Your task to perform on an android device: open app "Roku - Official Remote Control" Image 0: 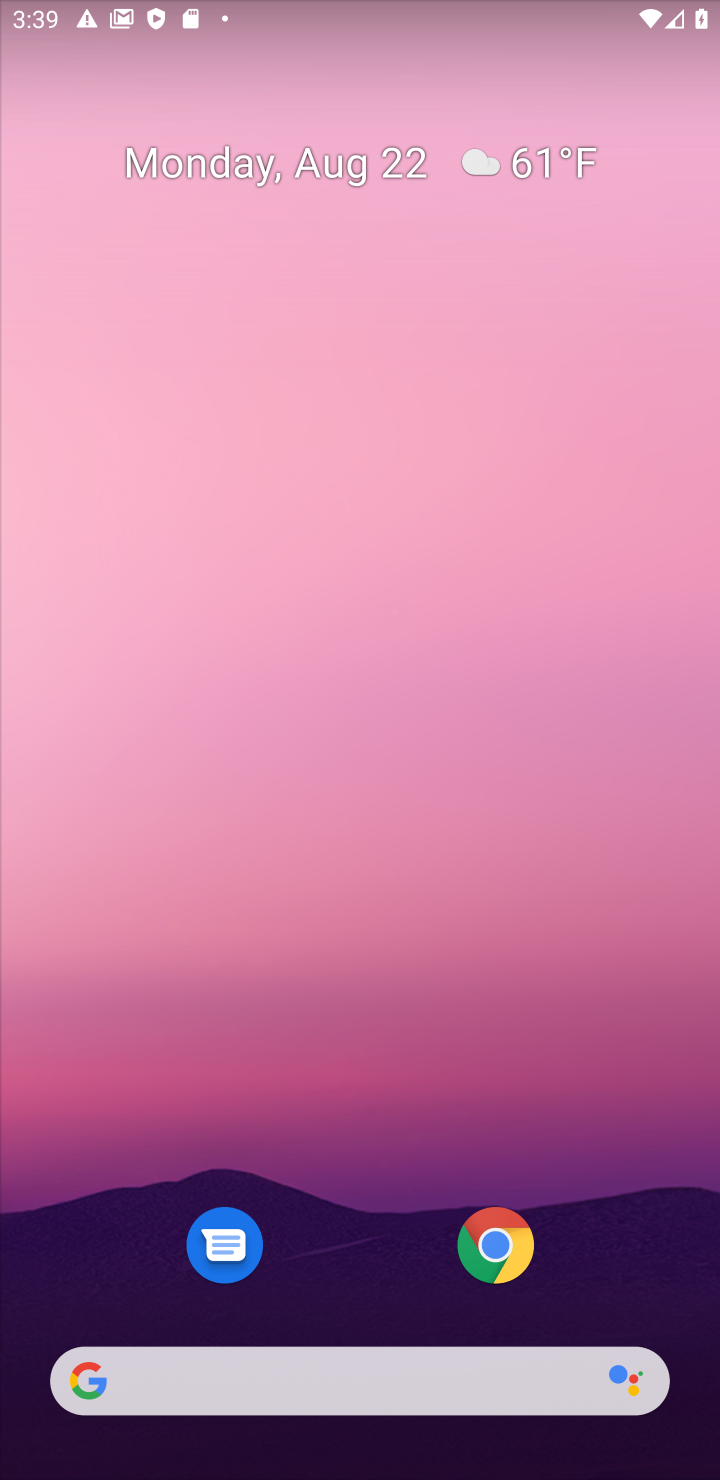
Step 0: press home button
Your task to perform on an android device: open app "Roku - Official Remote Control" Image 1: 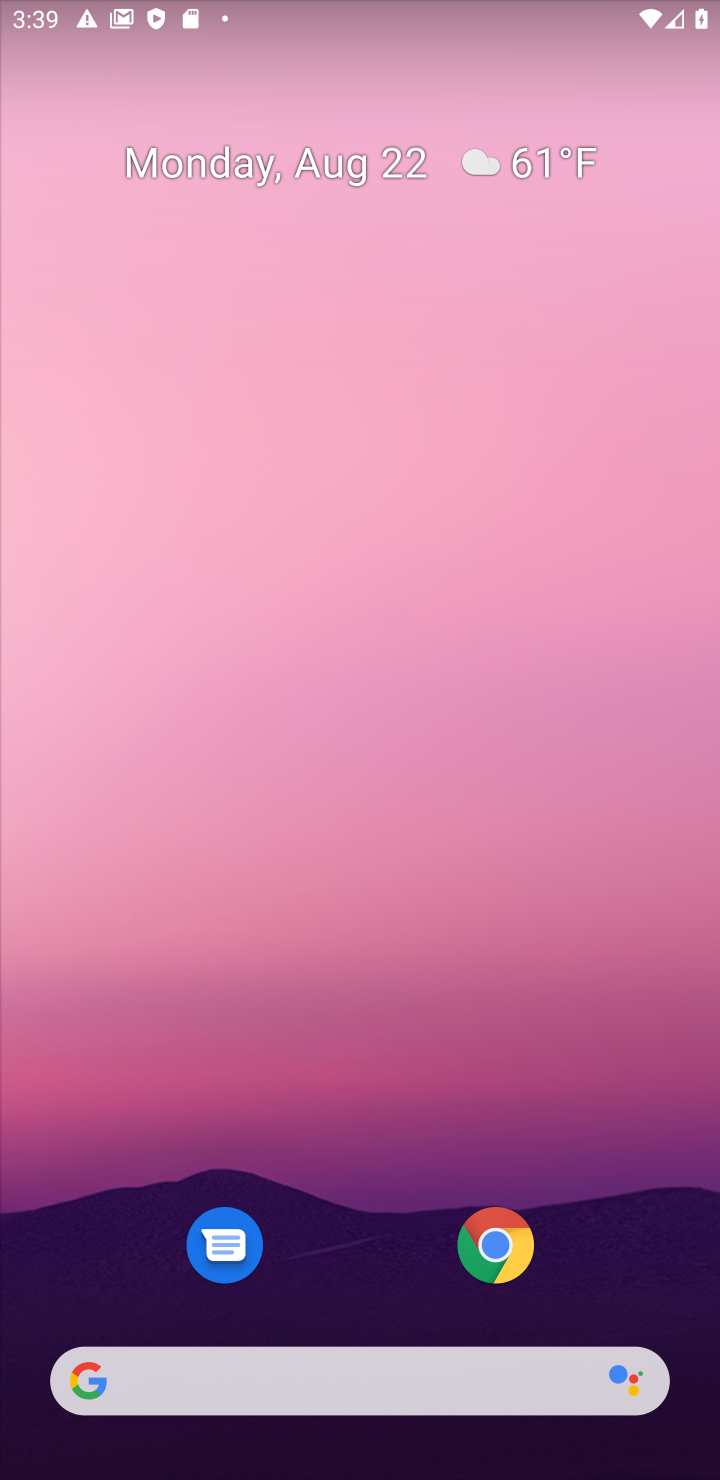
Step 1: drag from (624, 1157) to (628, 312)
Your task to perform on an android device: open app "Roku - Official Remote Control" Image 2: 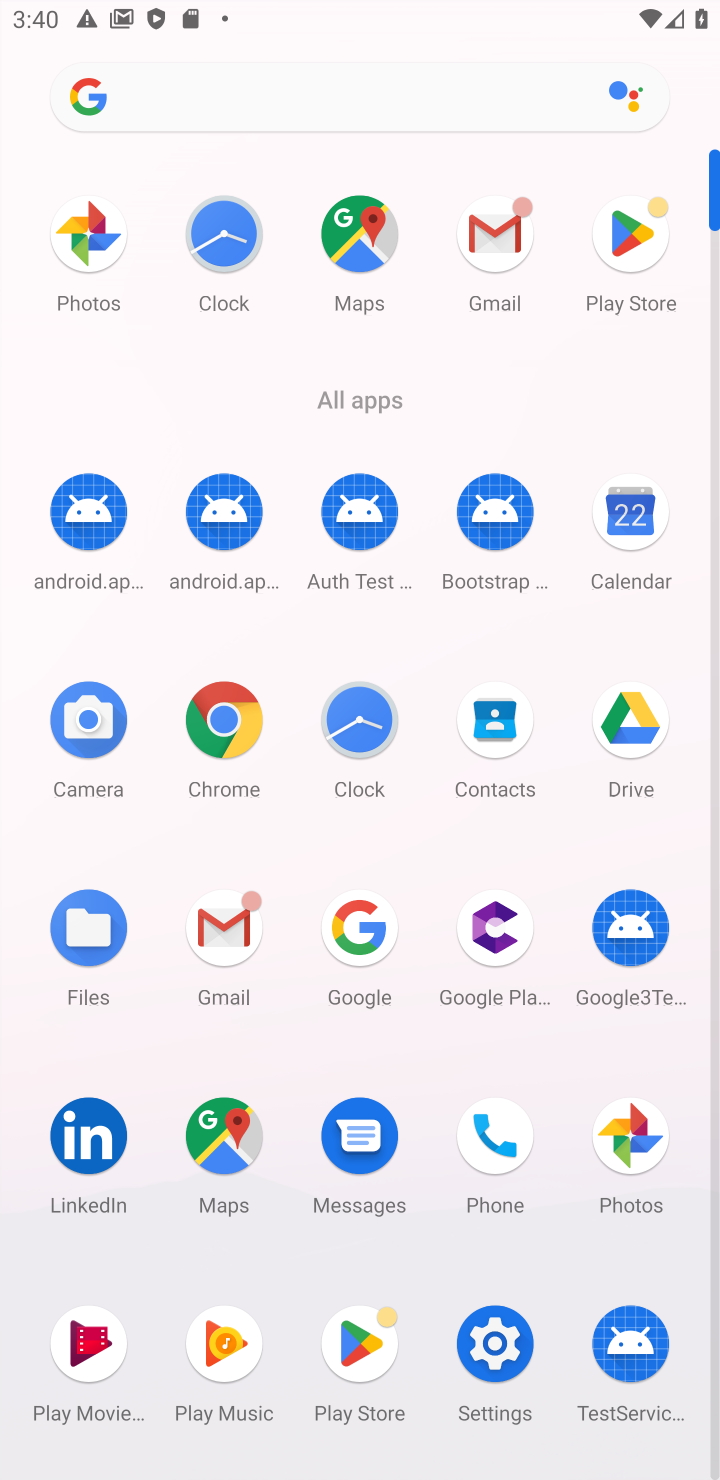
Step 2: click (626, 234)
Your task to perform on an android device: open app "Roku - Official Remote Control" Image 3: 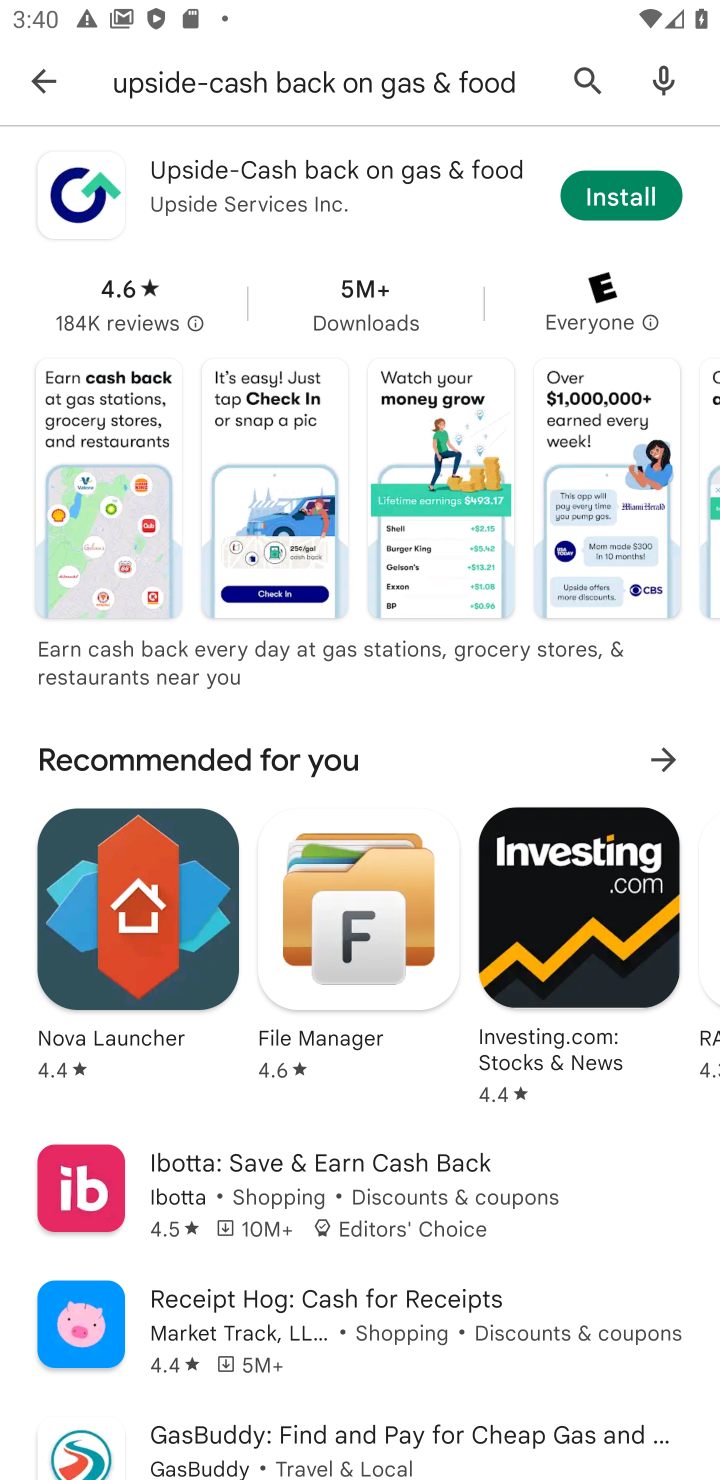
Step 3: press back button
Your task to perform on an android device: open app "Roku - Official Remote Control" Image 4: 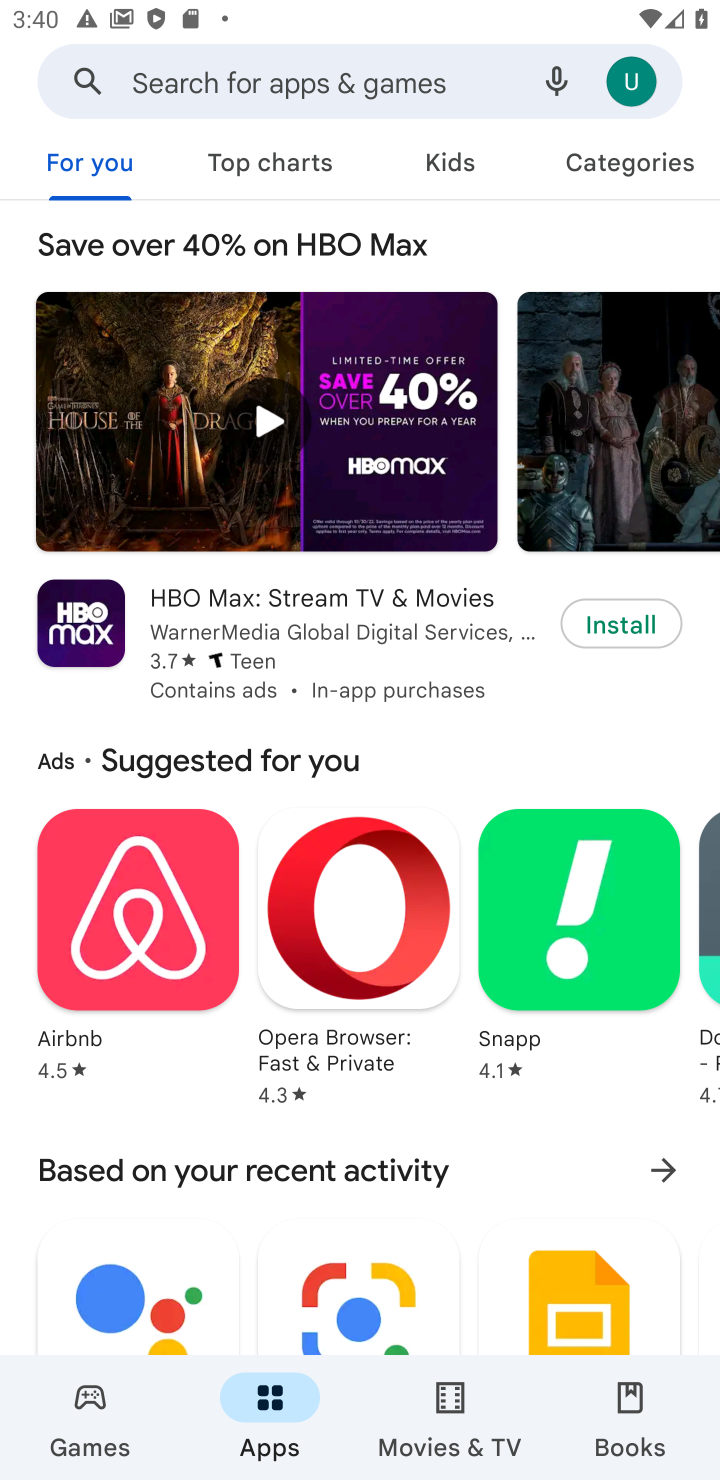
Step 4: click (398, 77)
Your task to perform on an android device: open app "Roku - Official Remote Control" Image 5: 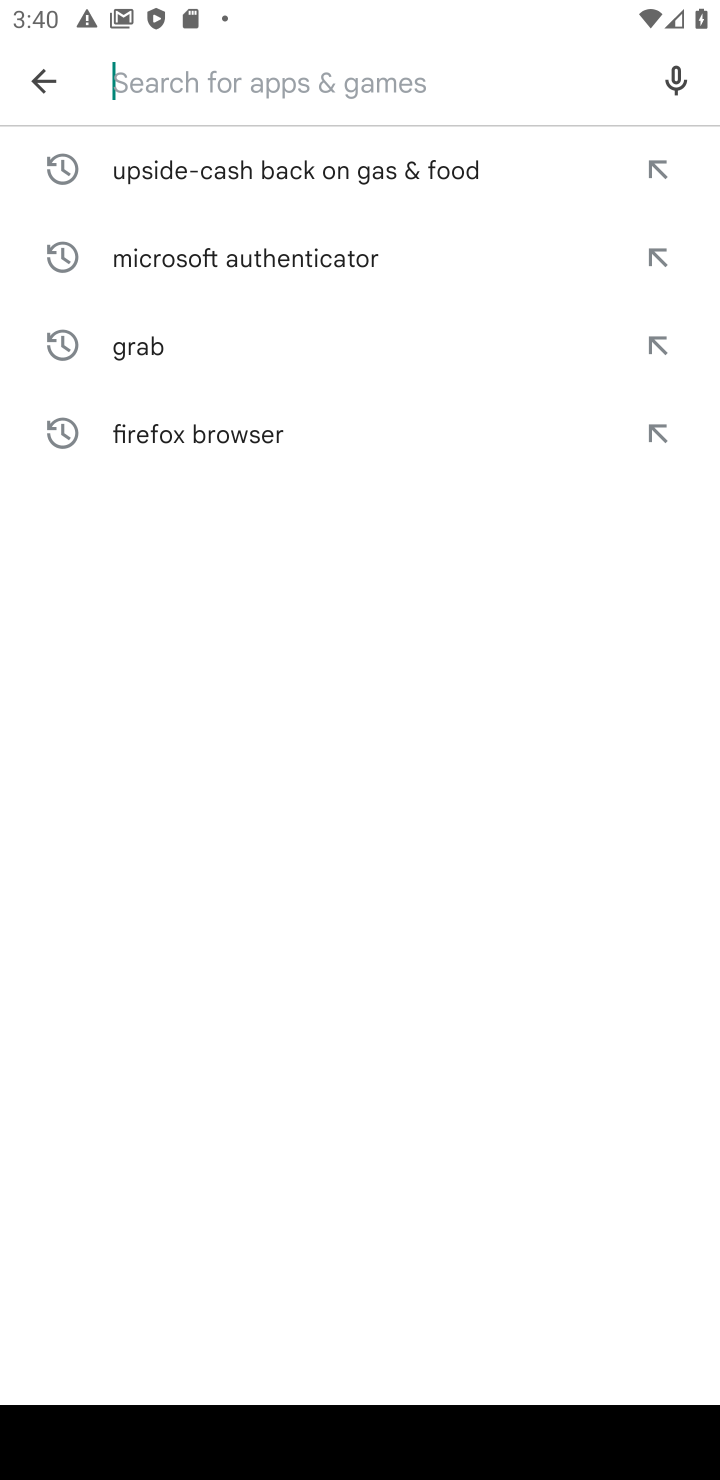
Step 5: type "Roku - Official Remote Control"
Your task to perform on an android device: open app "Roku - Official Remote Control" Image 6: 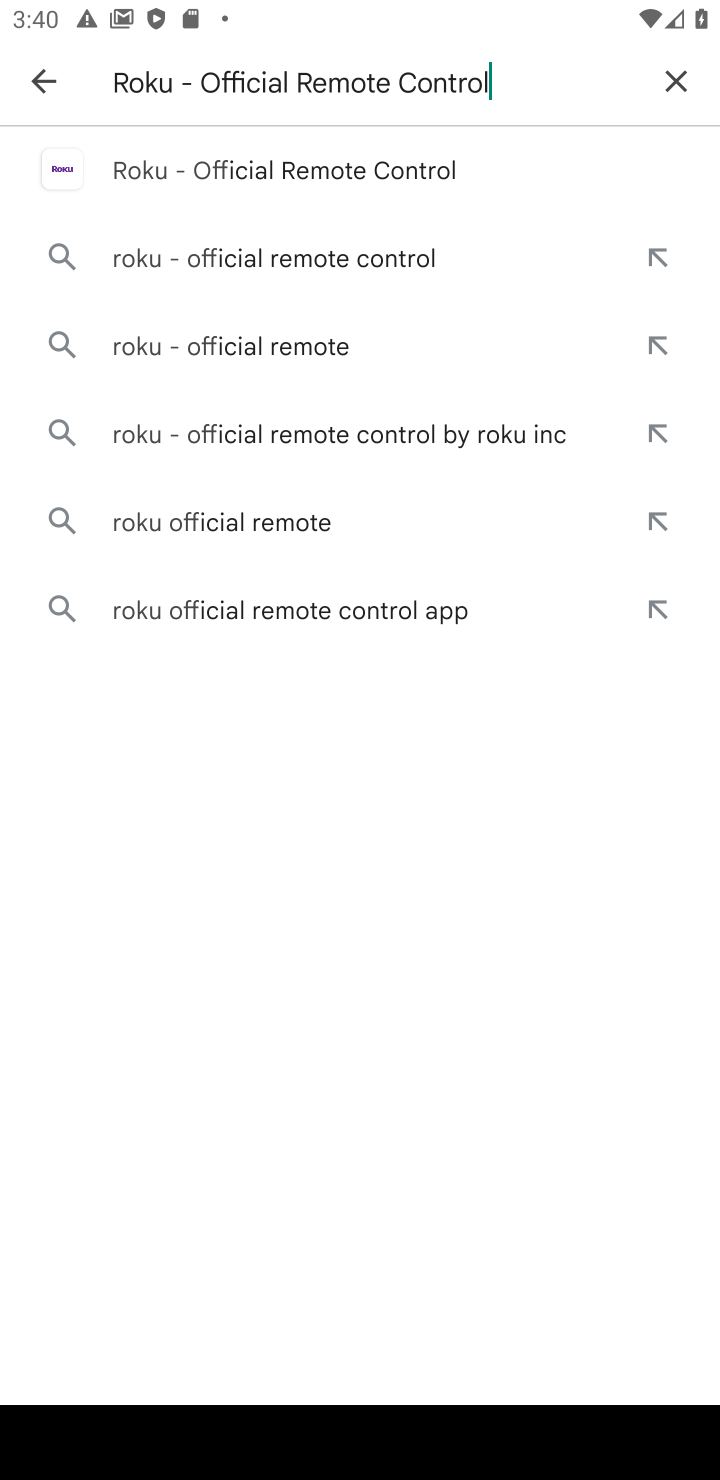
Step 6: press enter
Your task to perform on an android device: open app "Roku - Official Remote Control" Image 7: 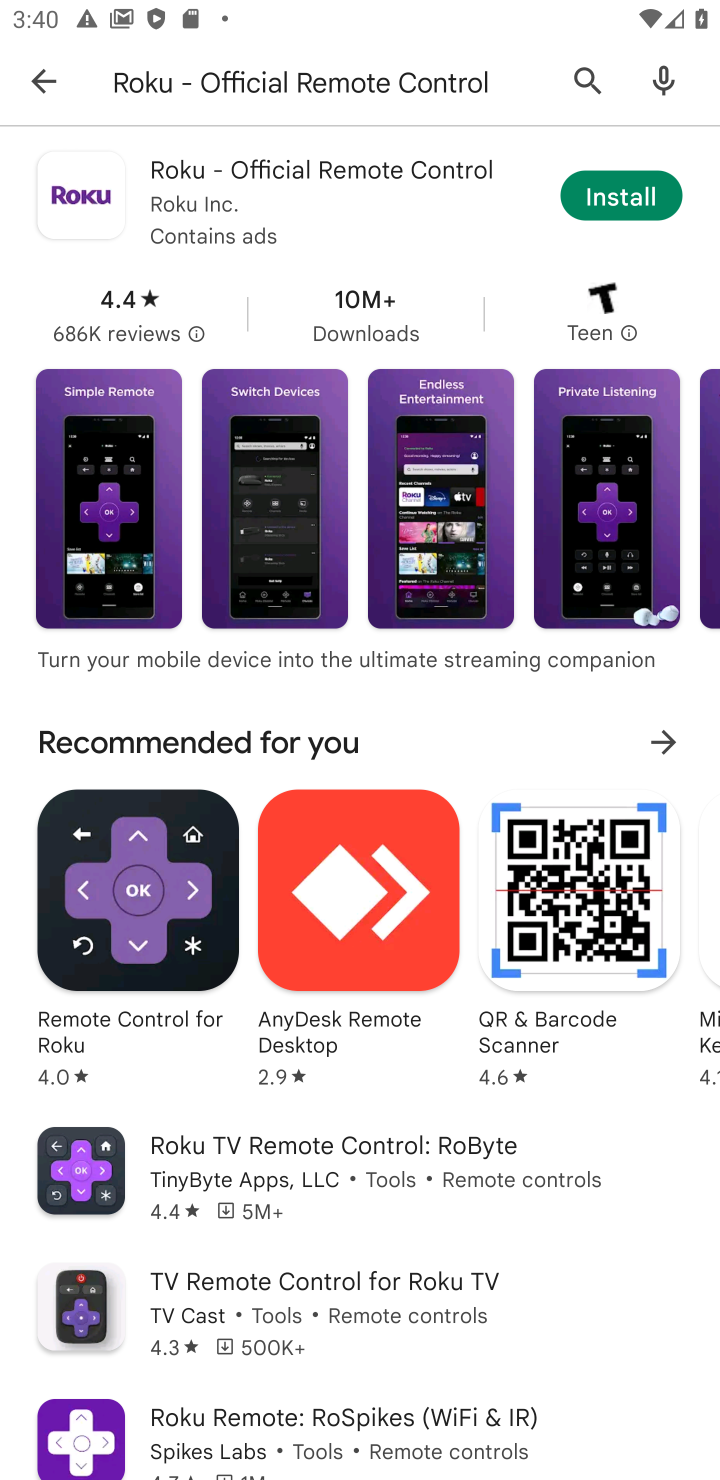
Step 7: task complete